Your task to perform on an android device: Go to accessibility settings Image 0: 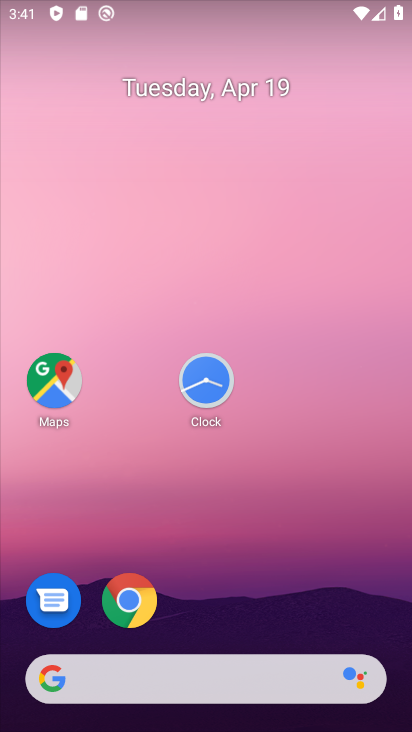
Step 0: drag from (284, 678) to (162, 244)
Your task to perform on an android device: Go to accessibility settings Image 1: 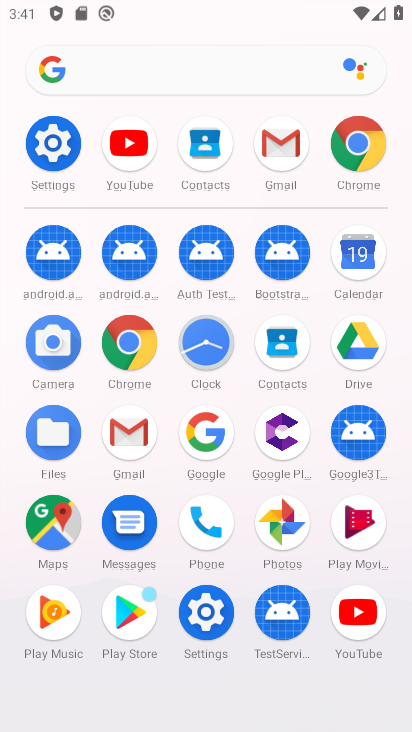
Step 1: click (30, 140)
Your task to perform on an android device: Go to accessibility settings Image 2: 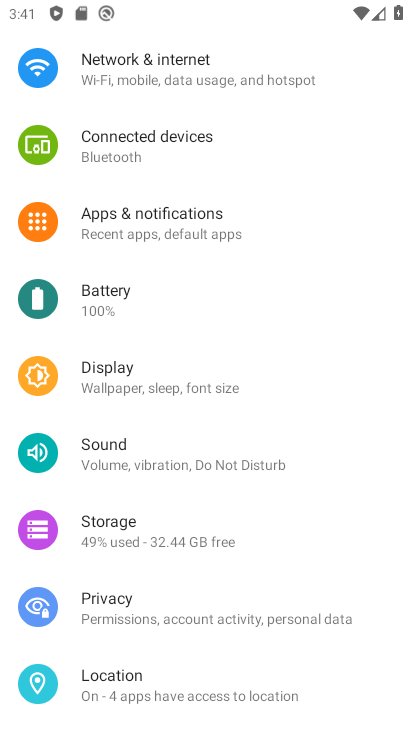
Step 2: drag from (168, 485) to (131, 223)
Your task to perform on an android device: Go to accessibility settings Image 3: 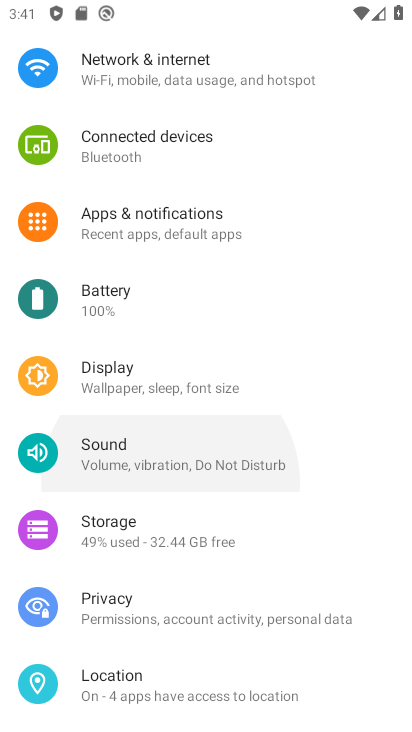
Step 3: drag from (156, 151) to (118, 189)
Your task to perform on an android device: Go to accessibility settings Image 4: 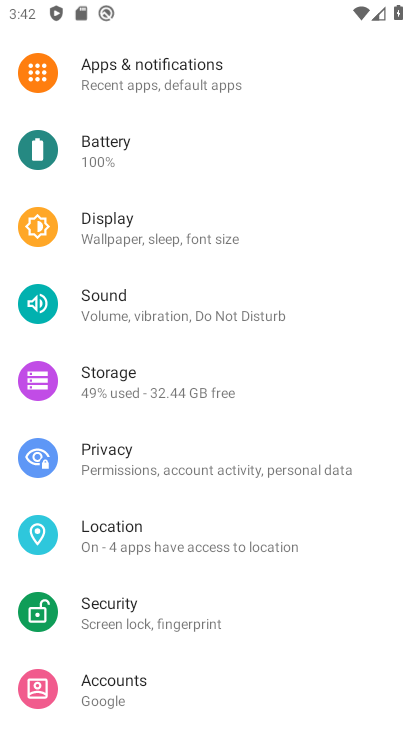
Step 4: drag from (267, 498) to (215, 126)
Your task to perform on an android device: Go to accessibility settings Image 5: 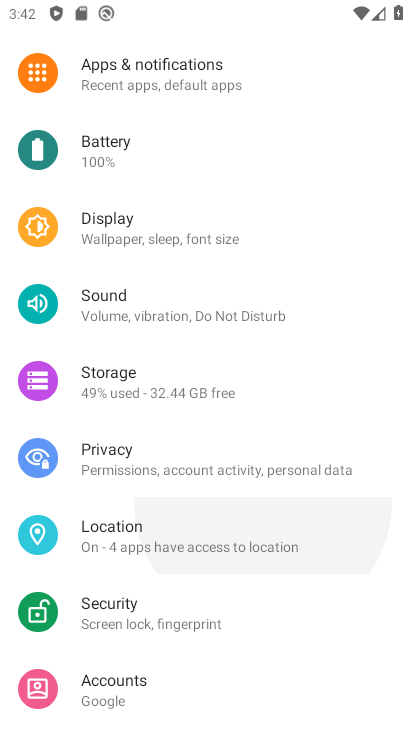
Step 5: drag from (218, 492) to (168, 137)
Your task to perform on an android device: Go to accessibility settings Image 6: 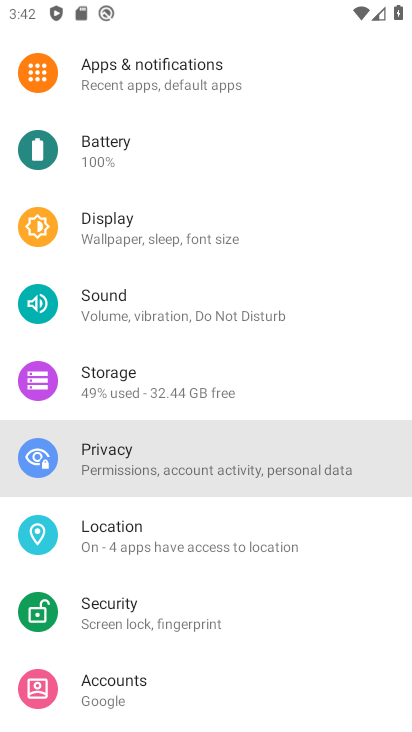
Step 6: drag from (248, 449) to (180, 145)
Your task to perform on an android device: Go to accessibility settings Image 7: 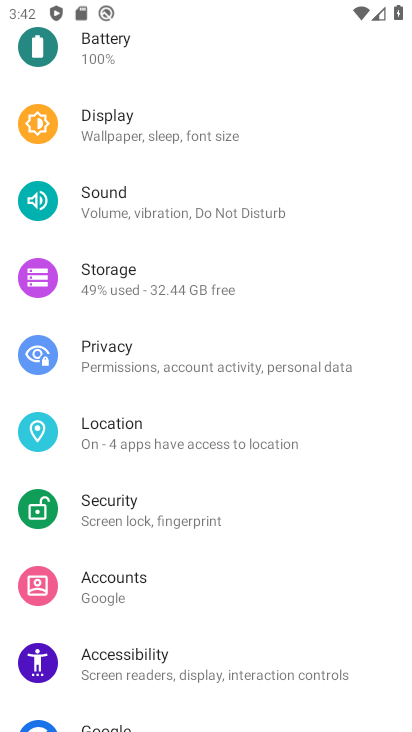
Step 7: click (128, 656)
Your task to perform on an android device: Go to accessibility settings Image 8: 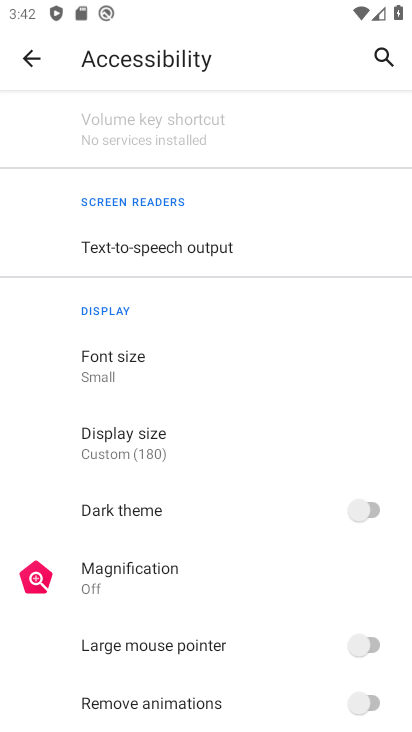
Step 8: task complete